Your task to perform on an android device: Open Android settings Image 0: 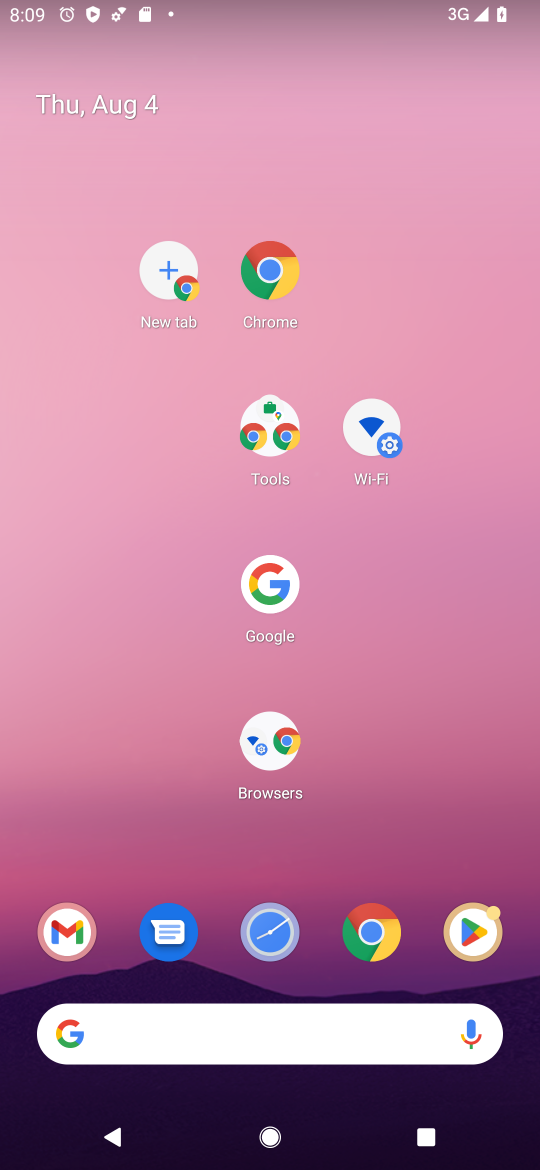
Step 0: drag from (373, 1068) to (362, 249)
Your task to perform on an android device: Open Android settings Image 1: 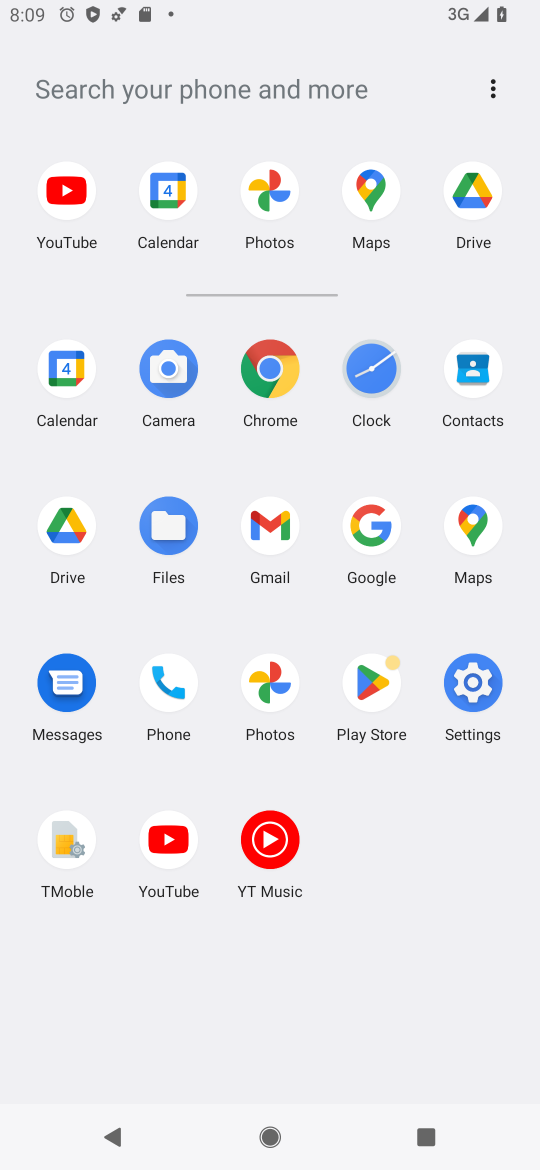
Step 1: click (458, 685)
Your task to perform on an android device: Open Android settings Image 2: 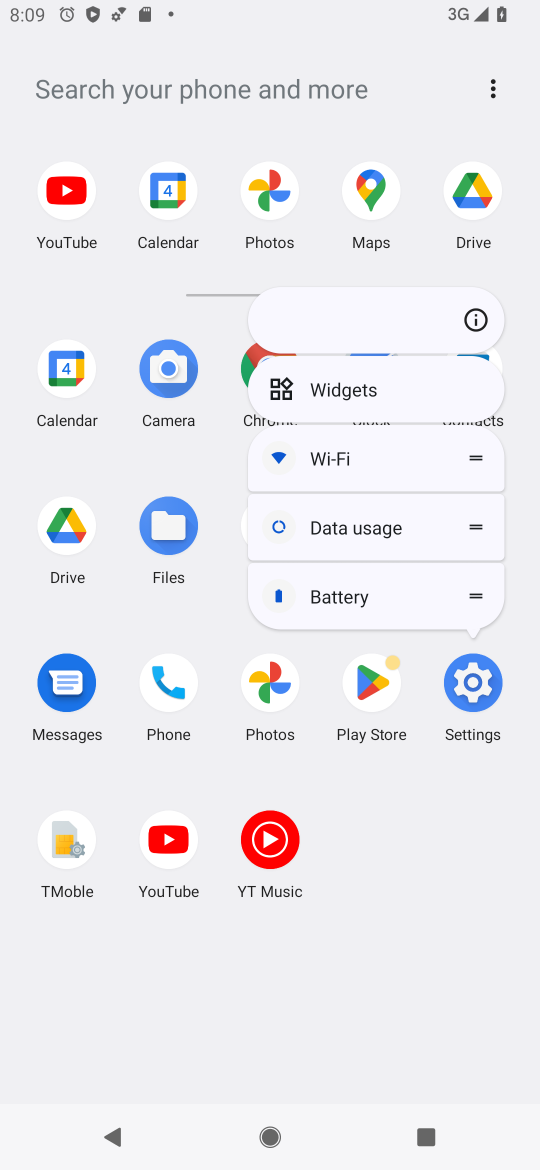
Step 2: click (483, 667)
Your task to perform on an android device: Open Android settings Image 3: 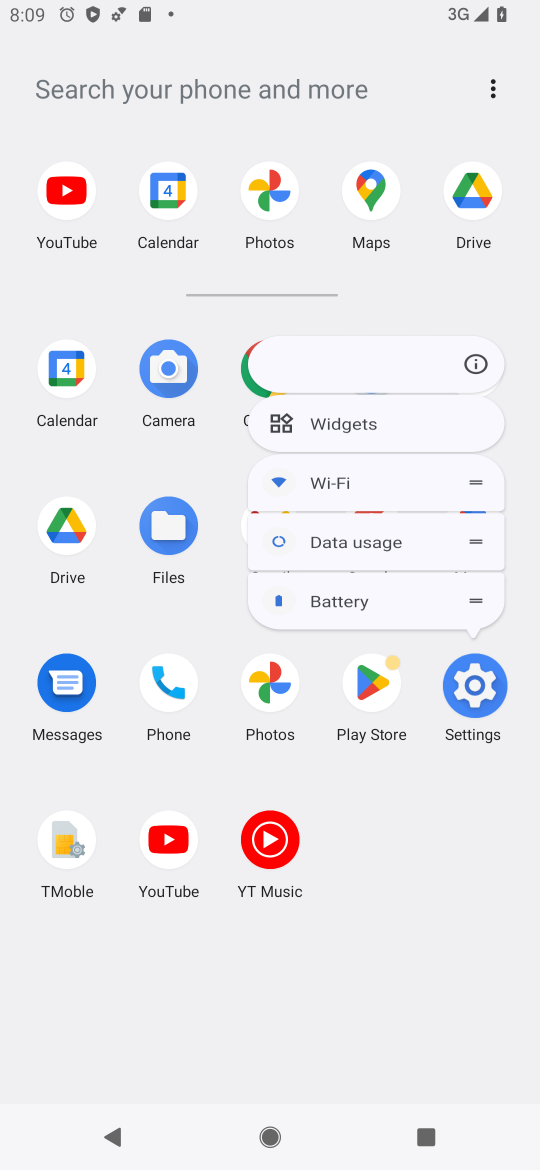
Step 3: click (472, 677)
Your task to perform on an android device: Open Android settings Image 4: 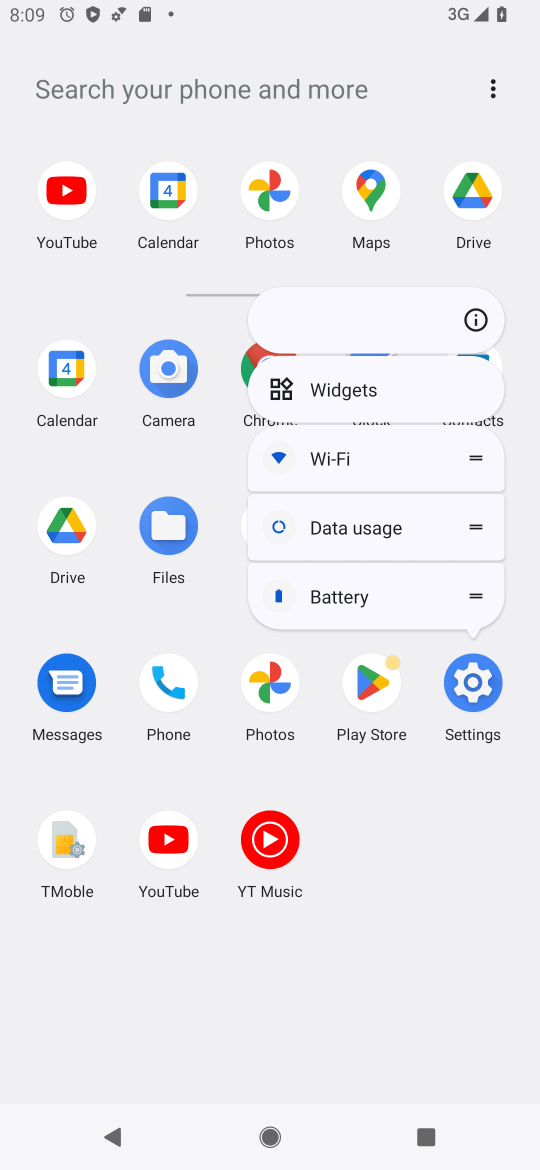
Step 4: click (466, 673)
Your task to perform on an android device: Open Android settings Image 5: 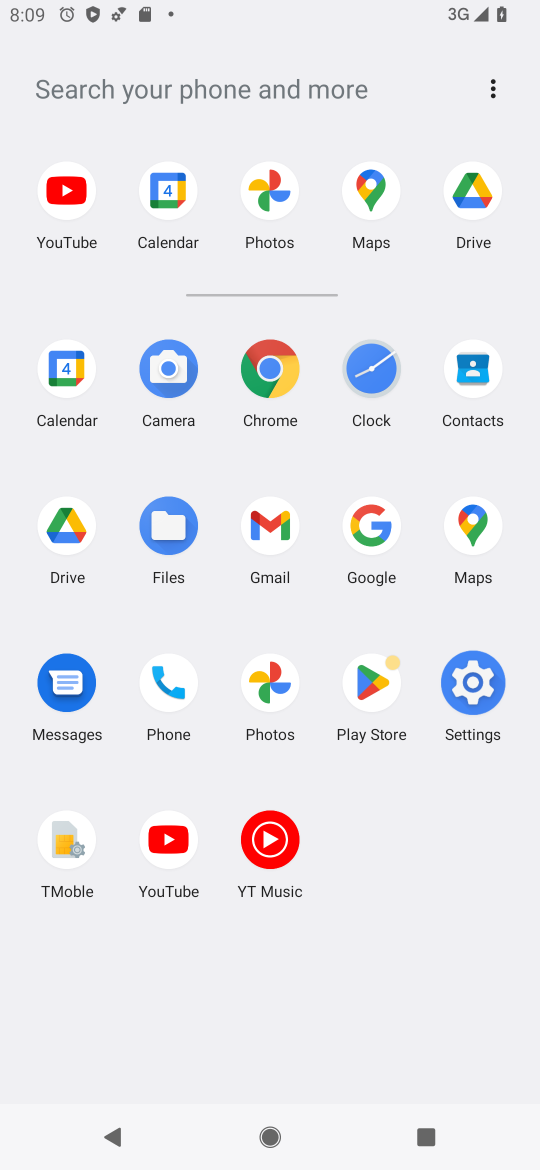
Step 5: click (475, 688)
Your task to perform on an android device: Open Android settings Image 6: 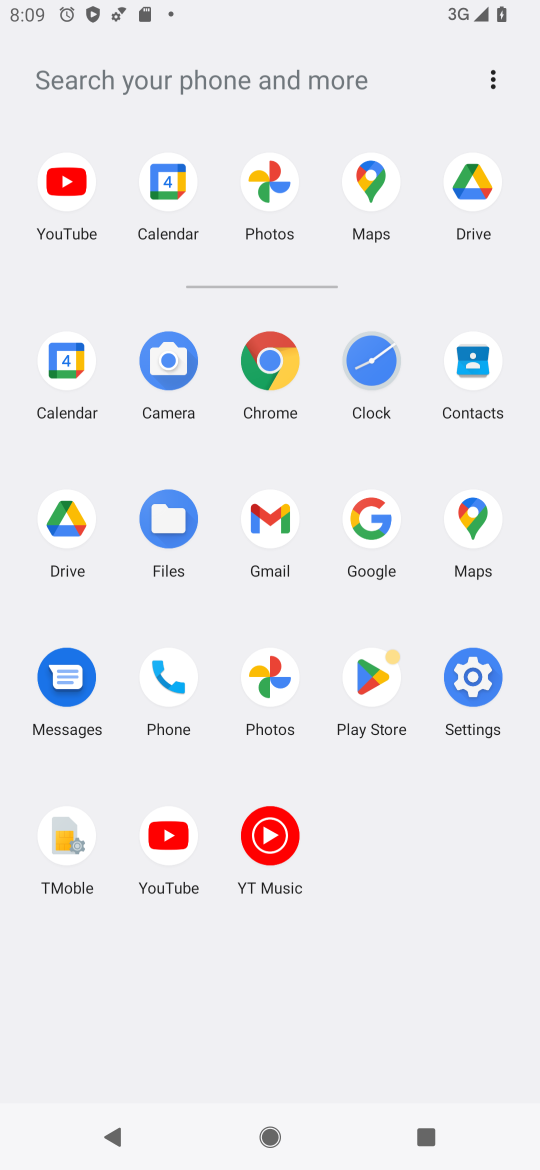
Step 6: click (478, 690)
Your task to perform on an android device: Open Android settings Image 7: 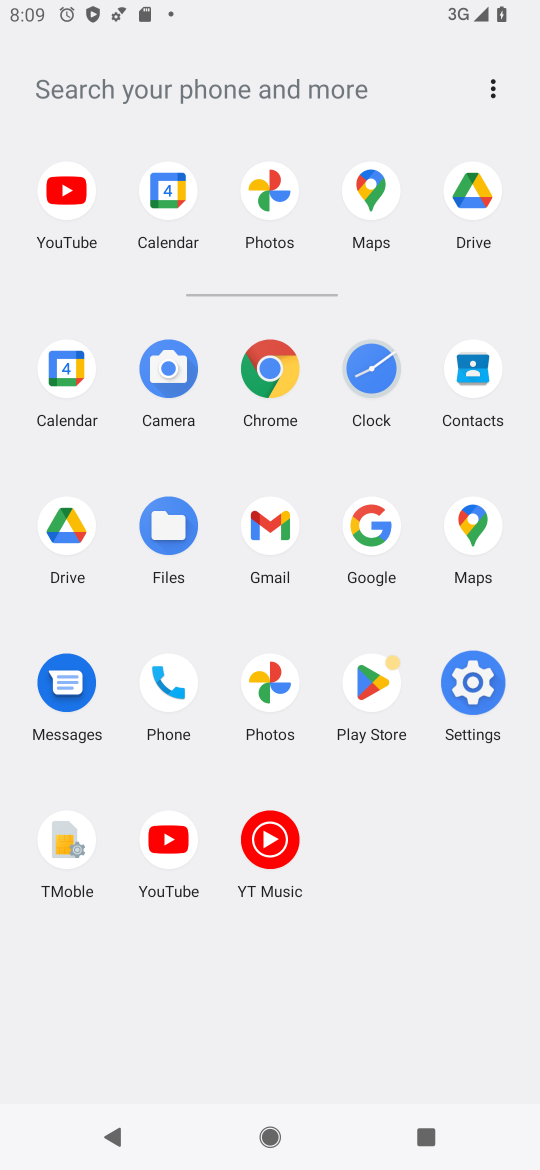
Step 7: click (478, 692)
Your task to perform on an android device: Open Android settings Image 8: 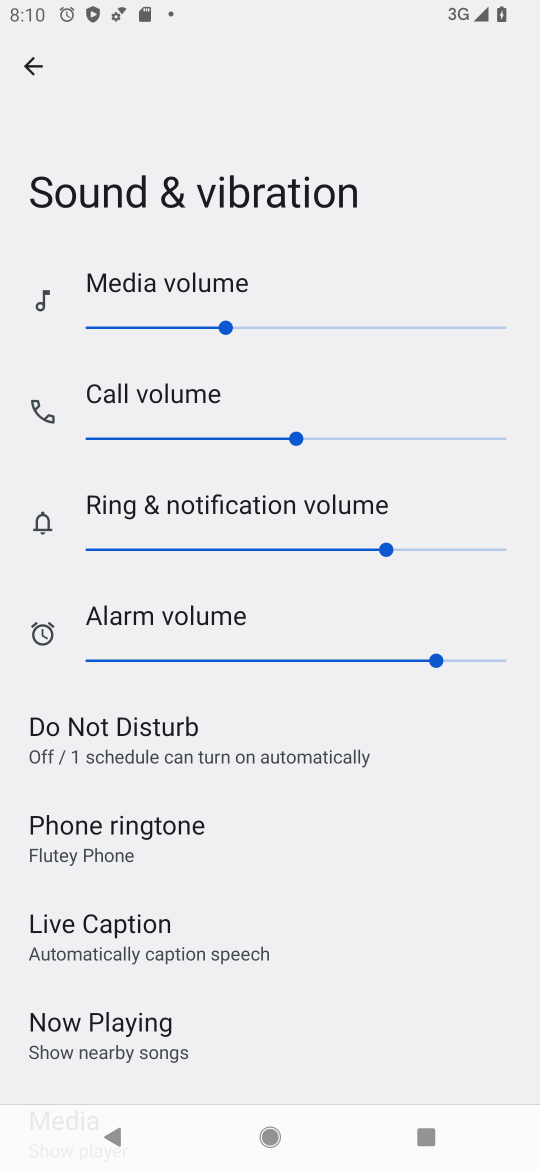
Step 8: click (42, 68)
Your task to perform on an android device: Open Android settings Image 9: 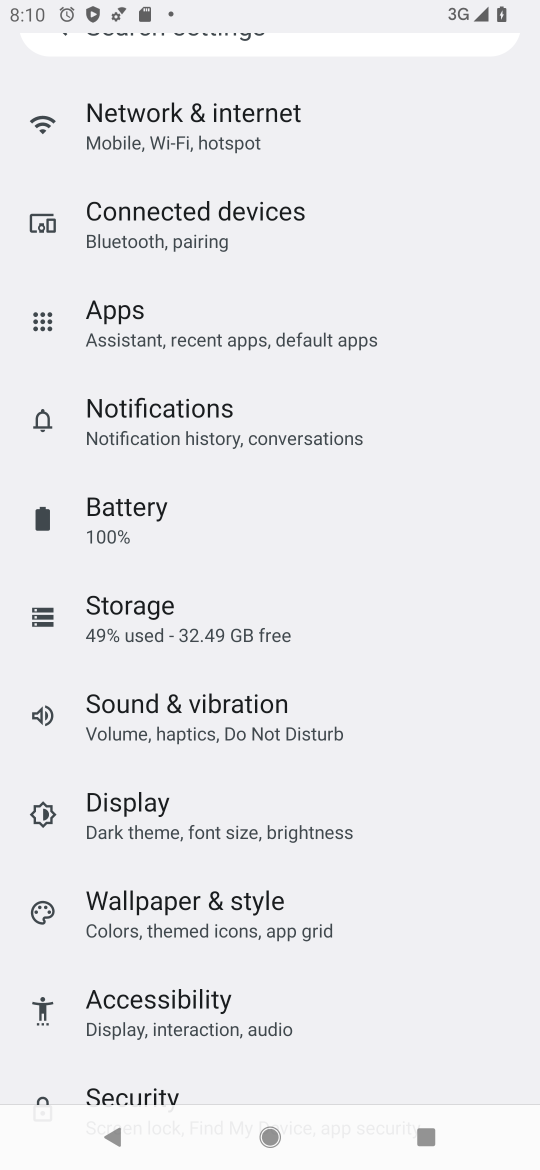
Step 9: drag from (206, 959) to (125, 568)
Your task to perform on an android device: Open Android settings Image 10: 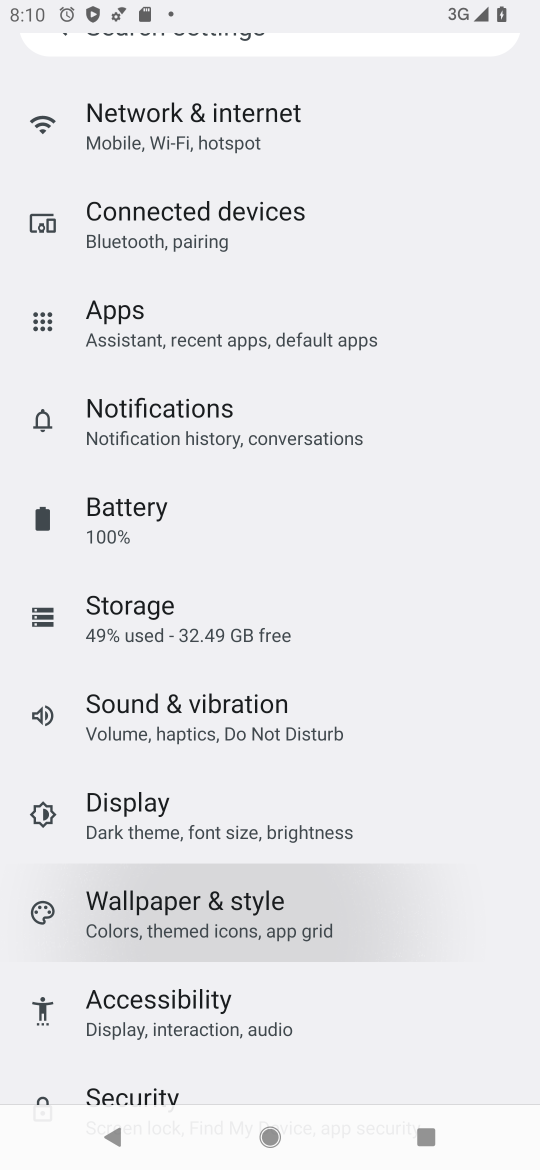
Step 10: click (230, 600)
Your task to perform on an android device: Open Android settings Image 11: 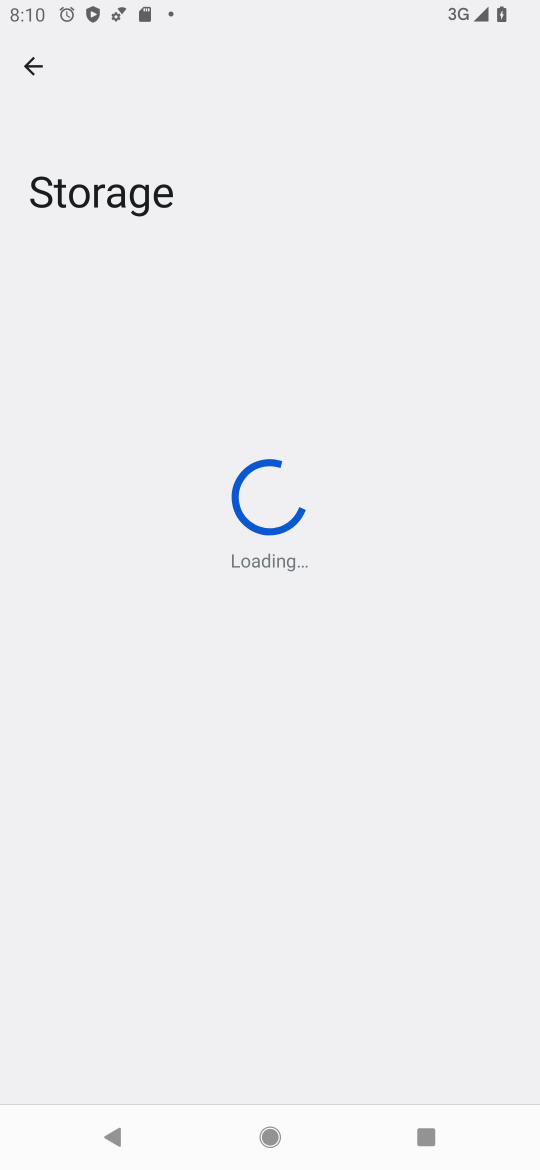
Step 11: drag from (131, 887) to (147, 606)
Your task to perform on an android device: Open Android settings Image 12: 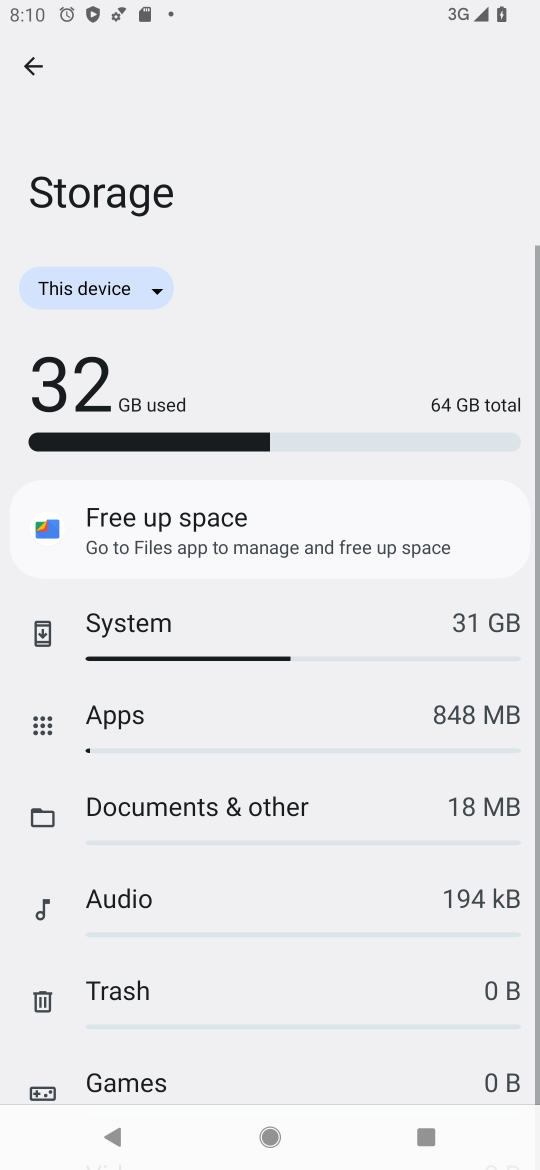
Step 12: click (27, 67)
Your task to perform on an android device: Open Android settings Image 13: 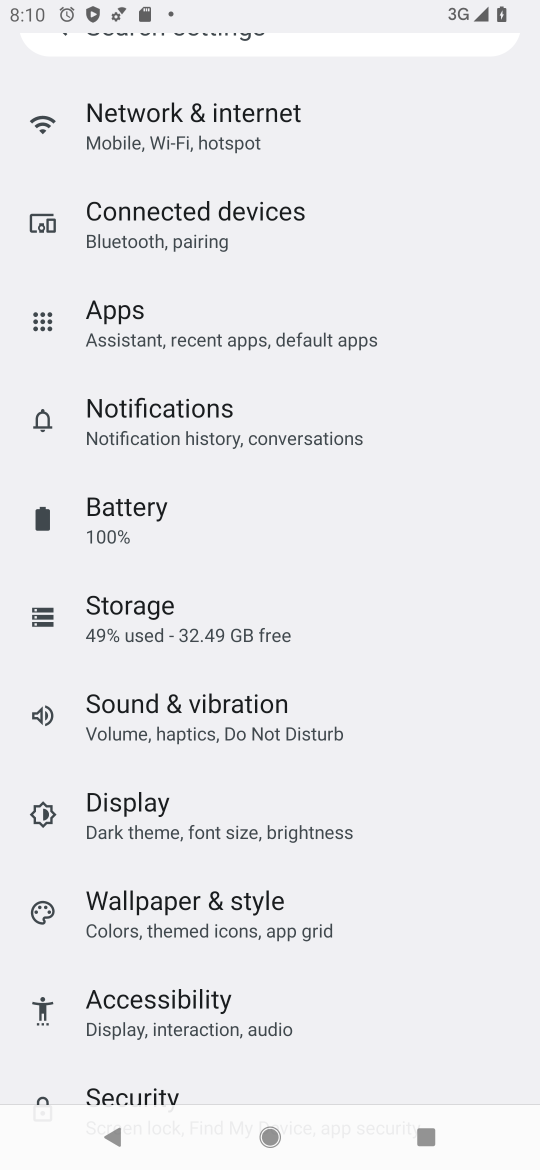
Step 13: drag from (271, 883) to (269, 504)
Your task to perform on an android device: Open Android settings Image 14: 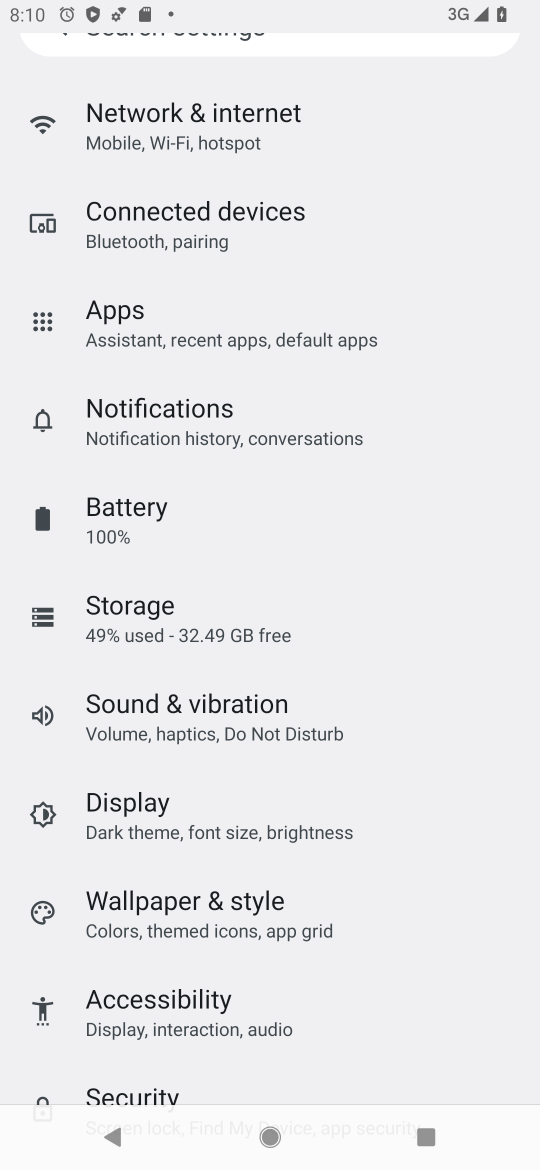
Step 14: drag from (198, 908) to (320, 259)
Your task to perform on an android device: Open Android settings Image 15: 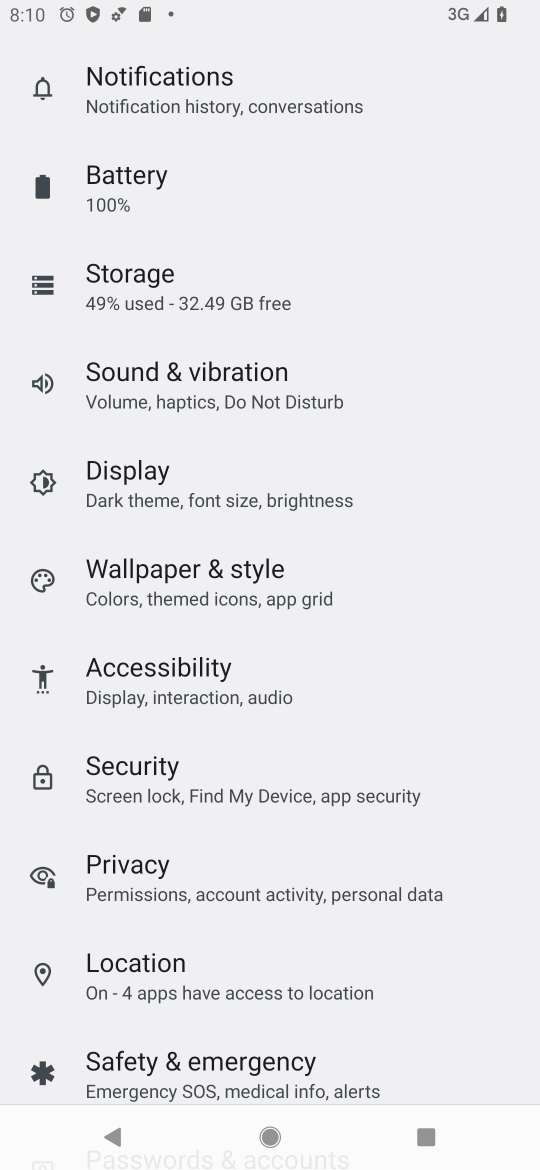
Step 15: drag from (183, 1025) to (188, 520)
Your task to perform on an android device: Open Android settings Image 16: 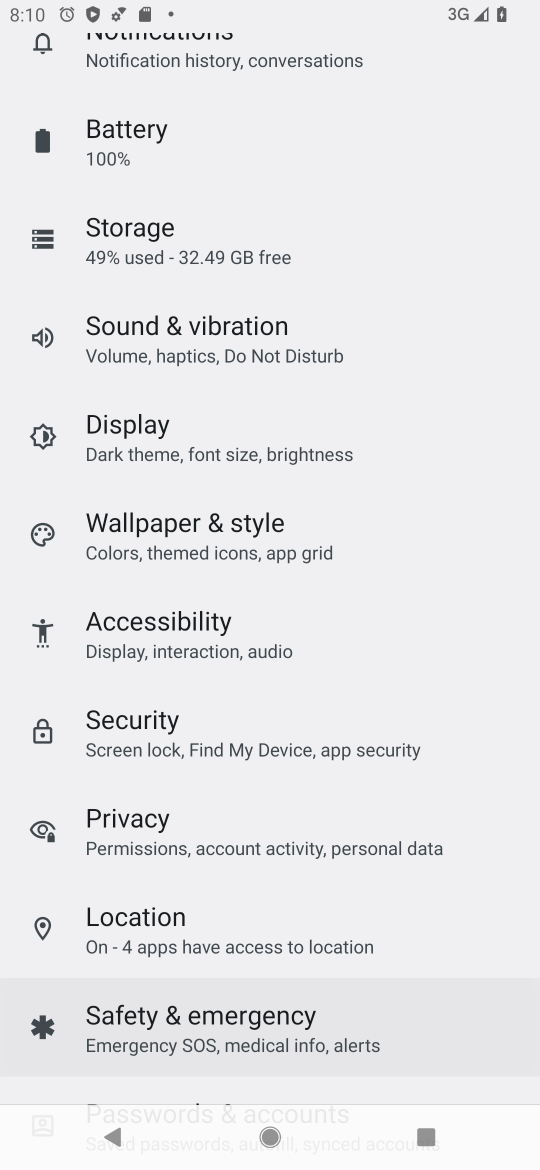
Step 16: drag from (172, 814) to (178, 443)
Your task to perform on an android device: Open Android settings Image 17: 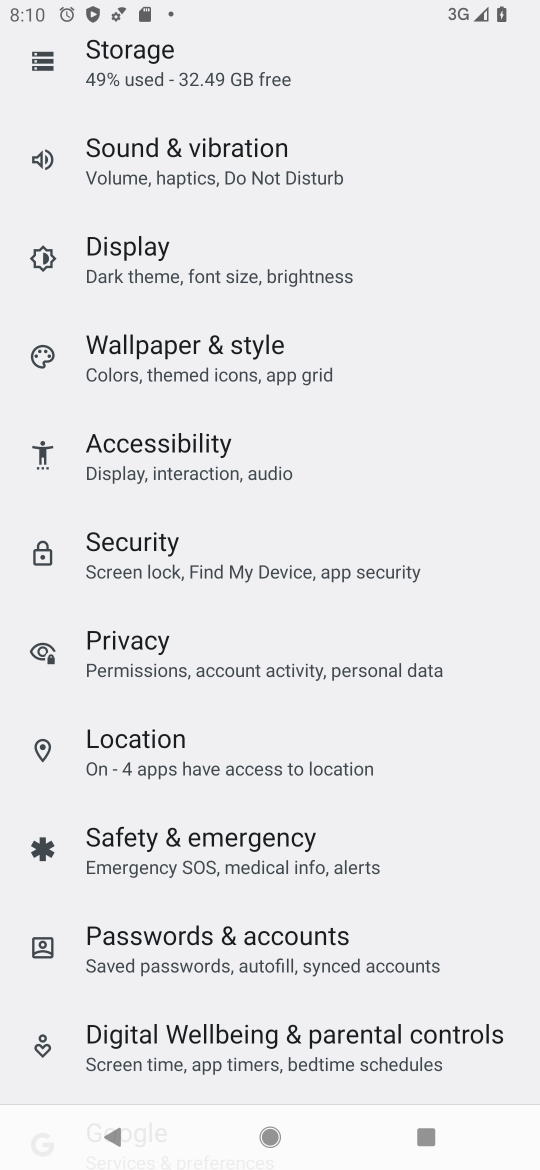
Step 17: drag from (161, 555) to (148, 368)
Your task to perform on an android device: Open Android settings Image 18: 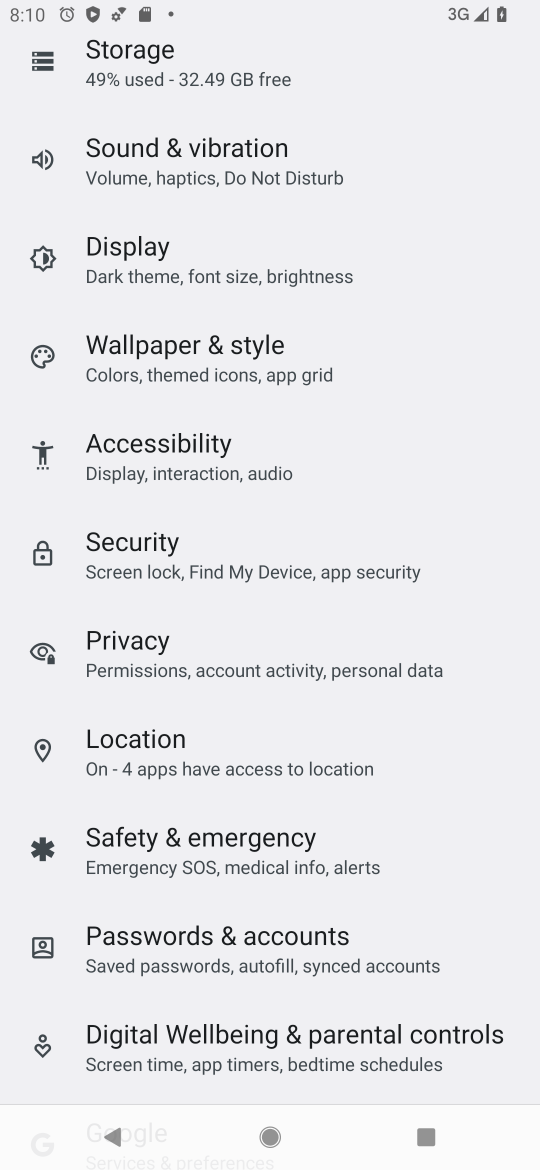
Step 18: drag from (164, 894) to (195, 361)
Your task to perform on an android device: Open Android settings Image 19: 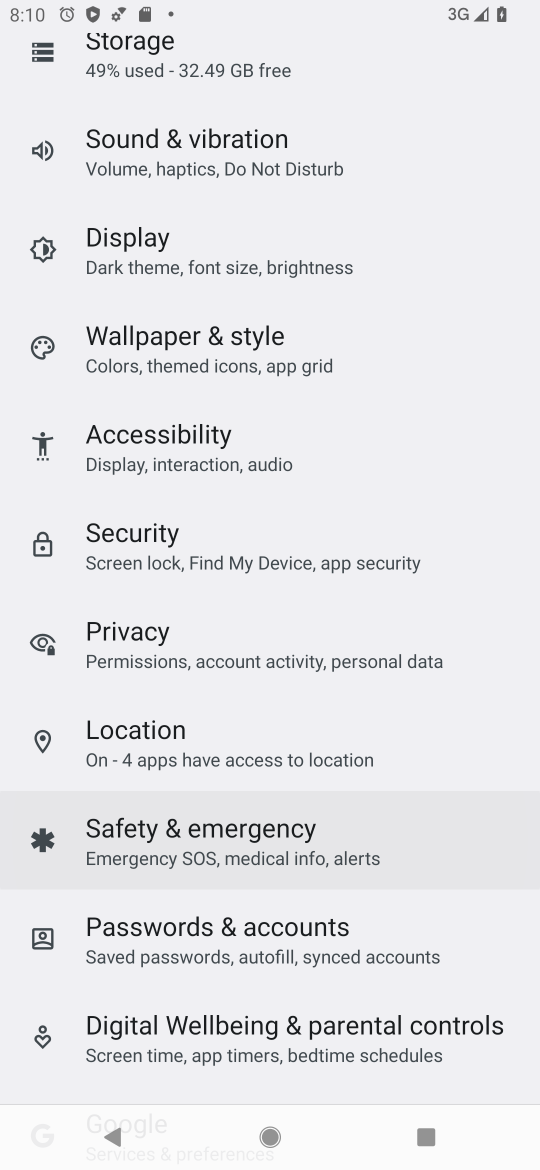
Step 19: drag from (262, 517) to (262, 262)
Your task to perform on an android device: Open Android settings Image 20: 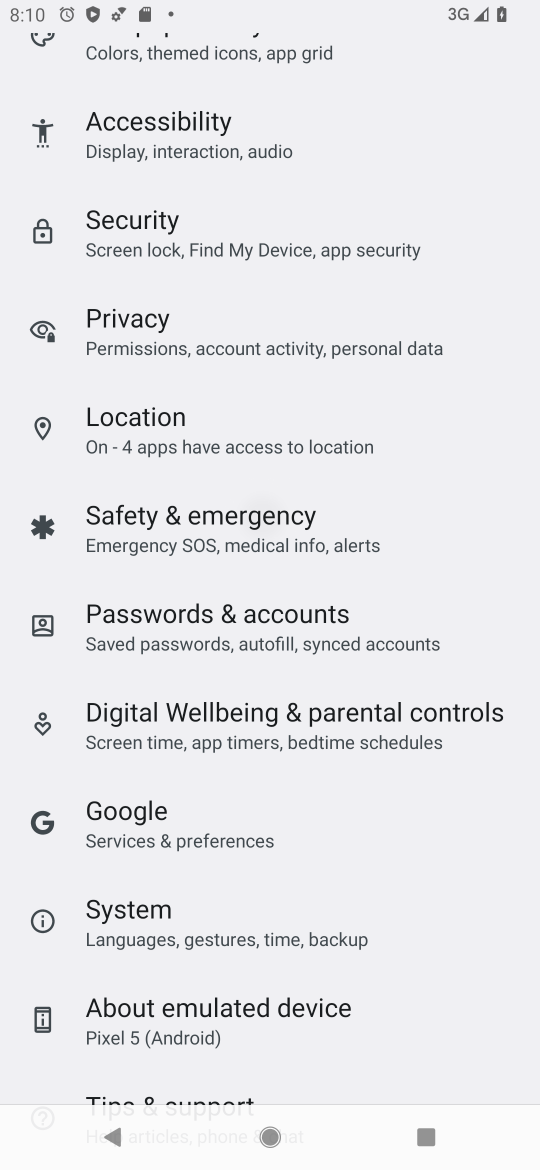
Step 20: drag from (165, 544) to (165, 401)
Your task to perform on an android device: Open Android settings Image 21: 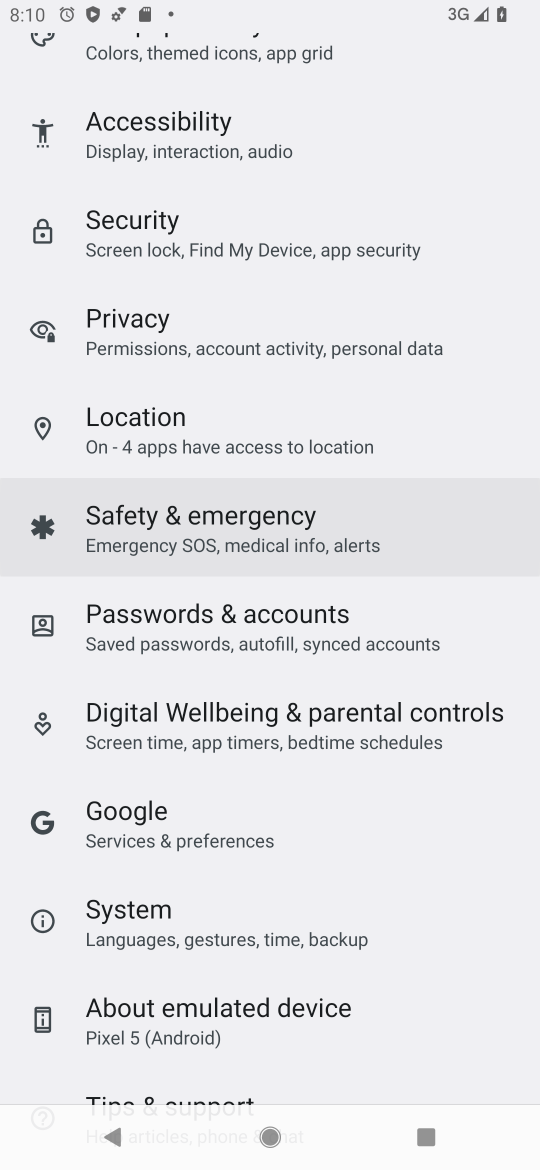
Step 21: drag from (184, 615) to (184, 521)
Your task to perform on an android device: Open Android settings Image 22: 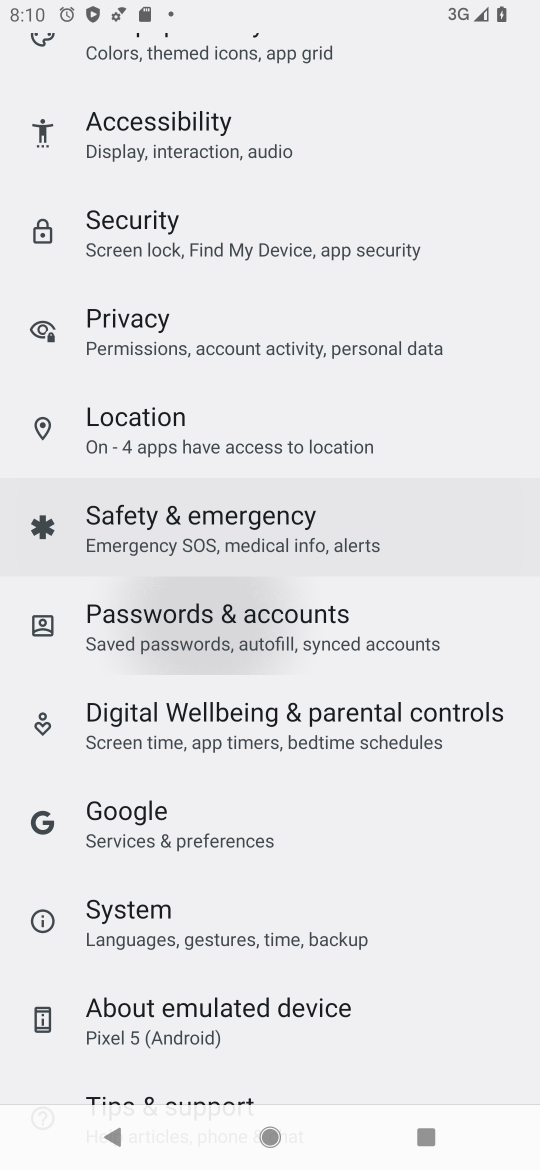
Step 22: drag from (120, 286) to (43, 381)
Your task to perform on an android device: Open Android settings Image 23: 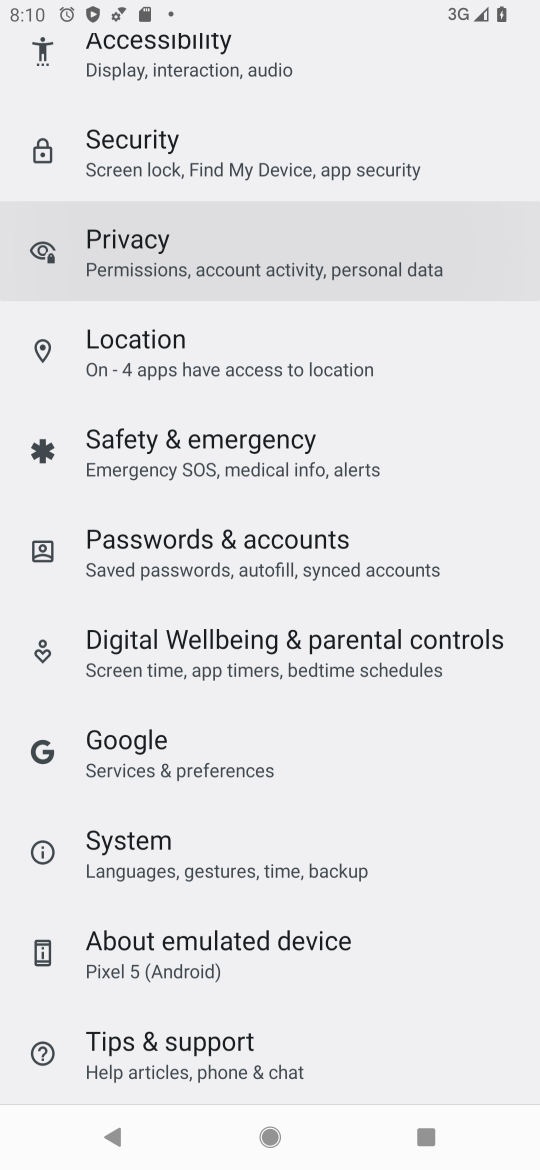
Step 23: drag from (150, 574) to (161, 285)
Your task to perform on an android device: Open Android settings Image 24: 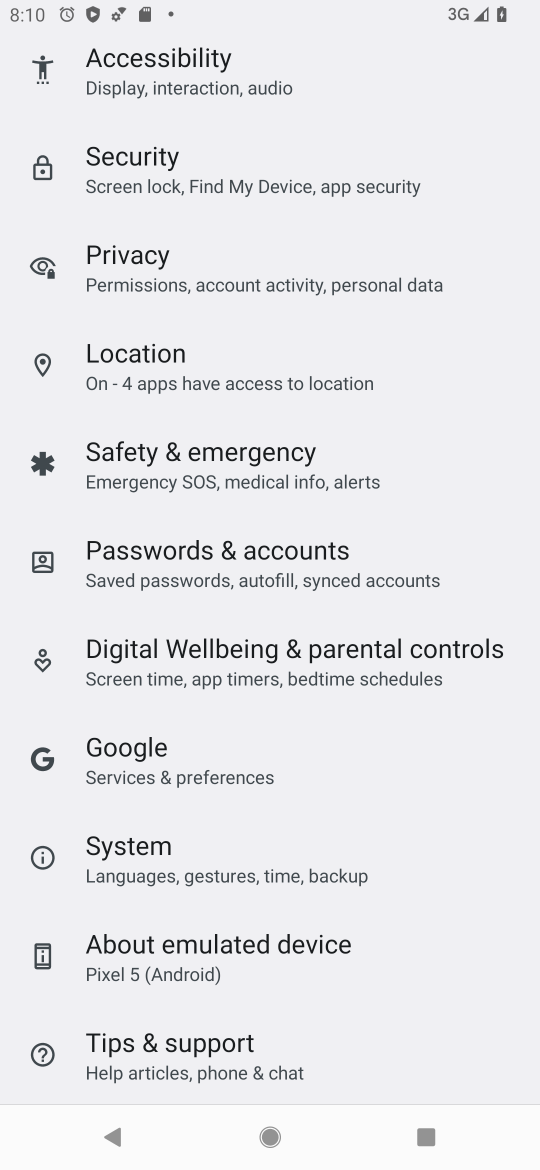
Step 24: drag from (141, 642) to (99, 493)
Your task to perform on an android device: Open Android settings Image 25: 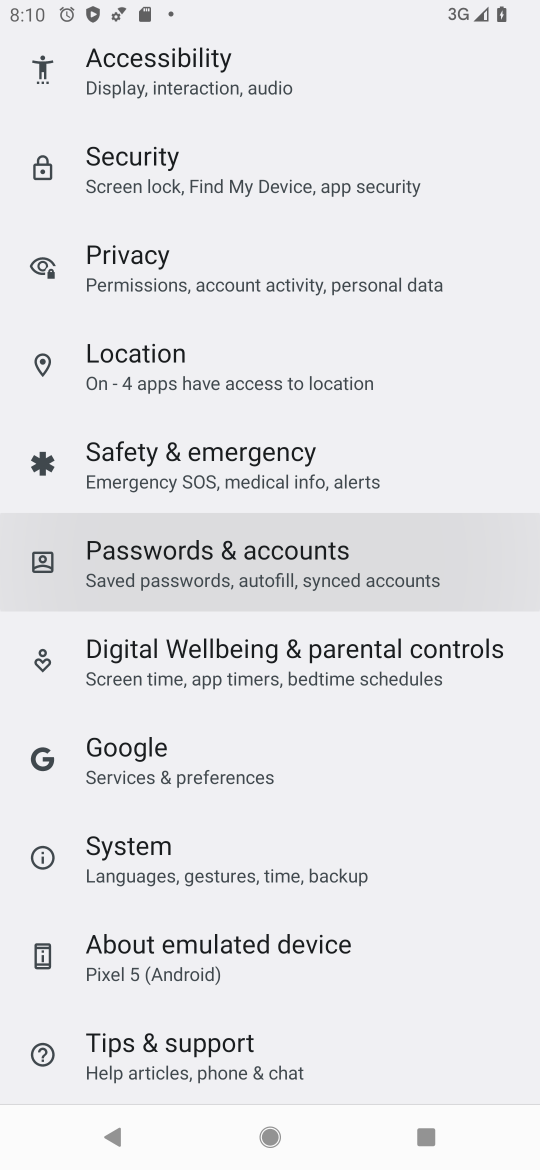
Step 25: drag from (116, 816) to (101, 534)
Your task to perform on an android device: Open Android settings Image 26: 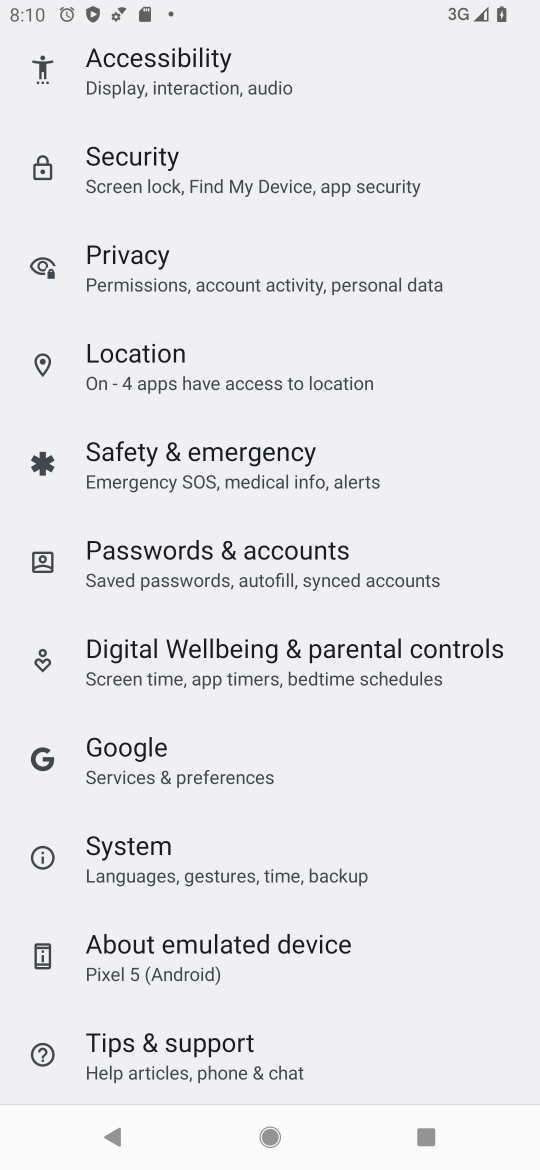
Step 26: drag from (199, 873) to (290, 458)
Your task to perform on an android device: Open Android settings Image 27: 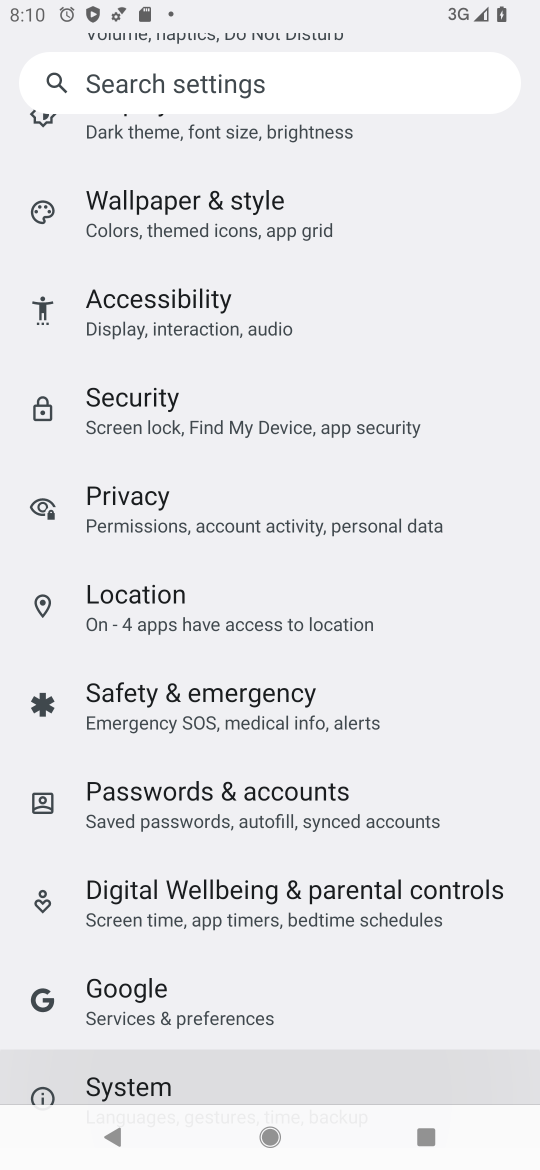
Step 27: drag from (311, 658) to (336, 376)
Your task to perform on an android device: Open Android settings Image 28: 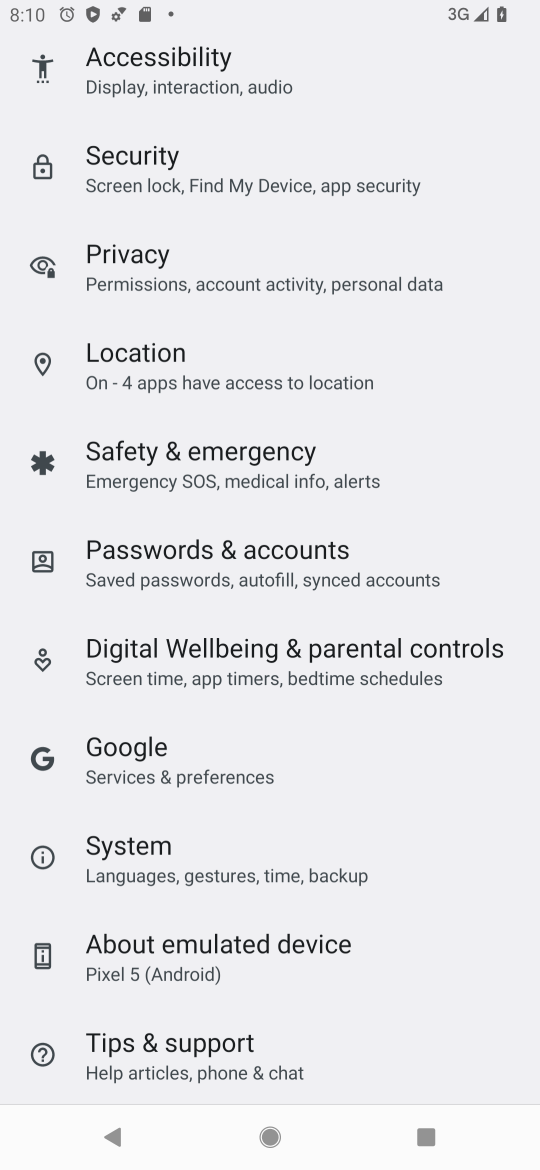
Step 28: drag from (268, 448) to (268, 378)
Your task to perform on an android device: Open Android settings Image 29: 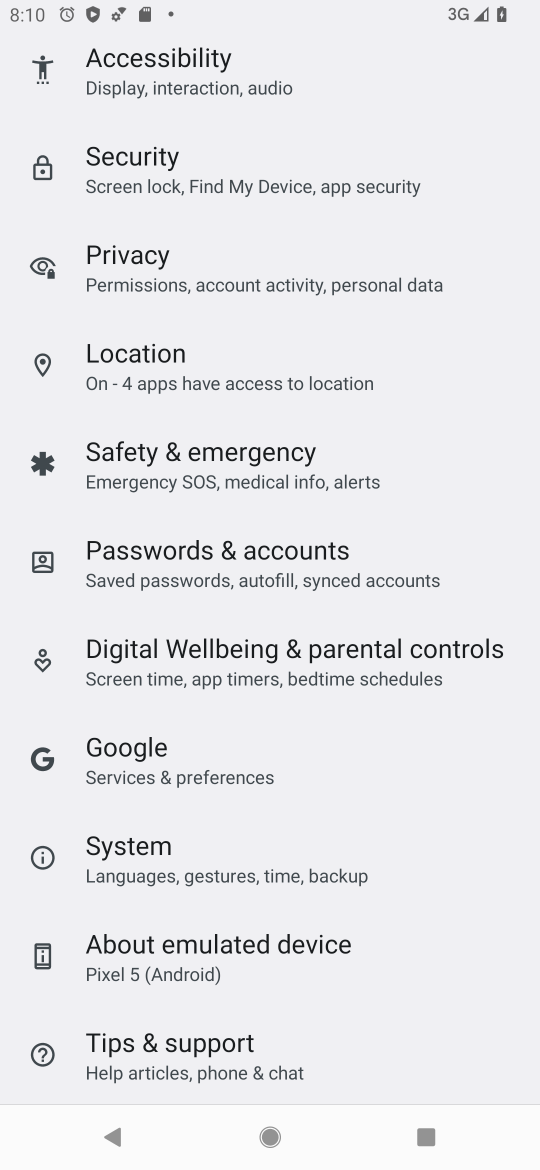
Step 29: drag from (144, 578) to (120, 478)
Your task to perform on an android device: Open Android settings Image 30: 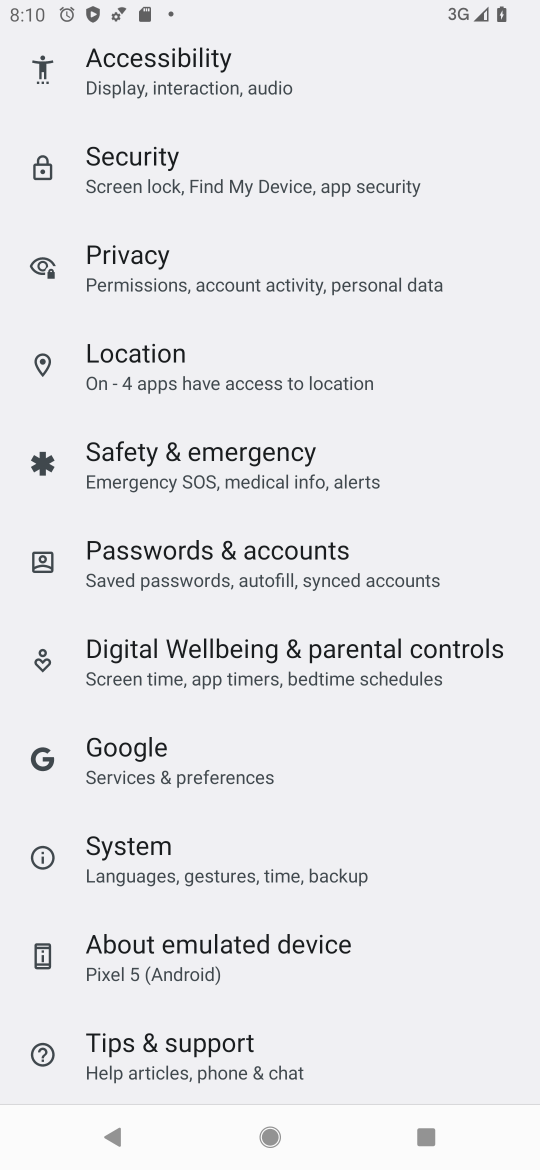
Step 30: drag from (131, 818) to (100, 298)
Your task to perform on an android device: Open Android settings Image 31: 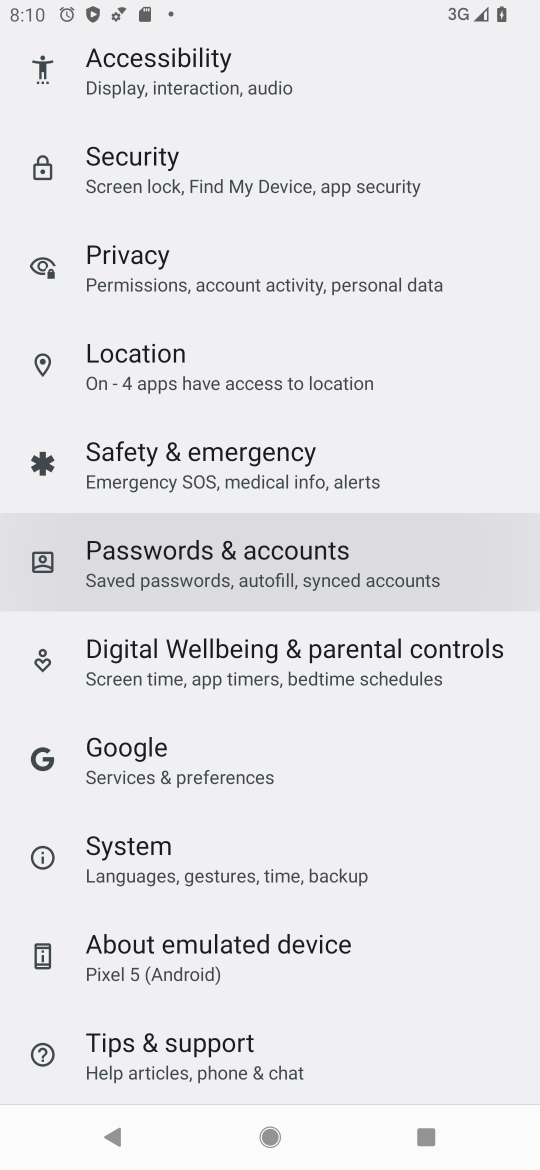
Step 31: drag from (153, 644) to (143, 584)
Your task to perform on an android device: Open Android settings Image 32: 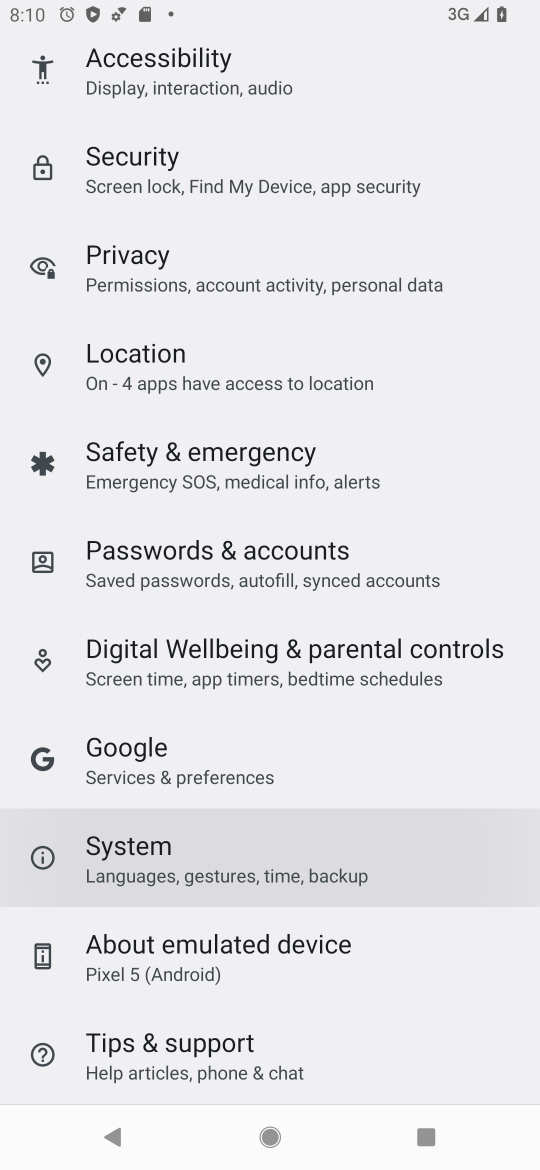
Step 32: click (157, 599)
Your task to perform on an android device: Open Android settings Image 33: 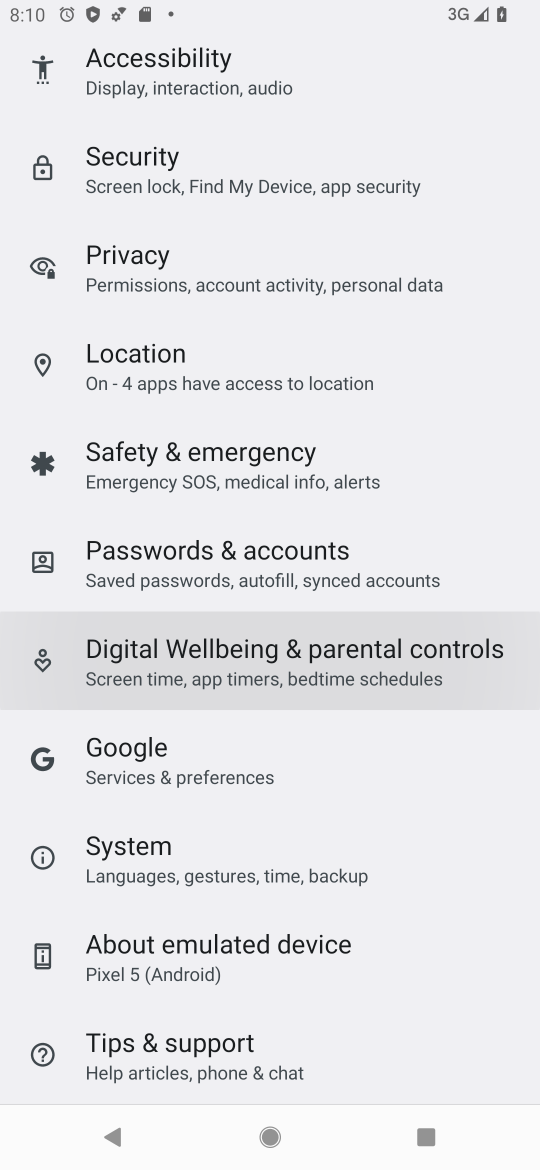
Step 33: click (200, 500)
Your task to perform on an android device: Open Android settings Image 34: 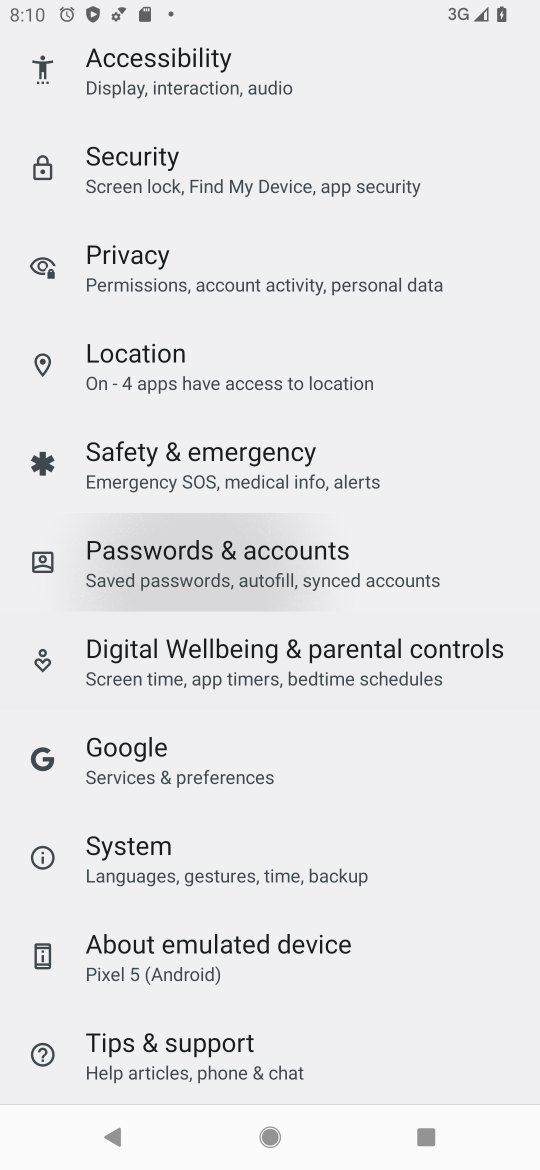
Step 34: drag from (178, 1052) to (121, 740)
Your task to perform on an android device: Open Android settings Image 35: 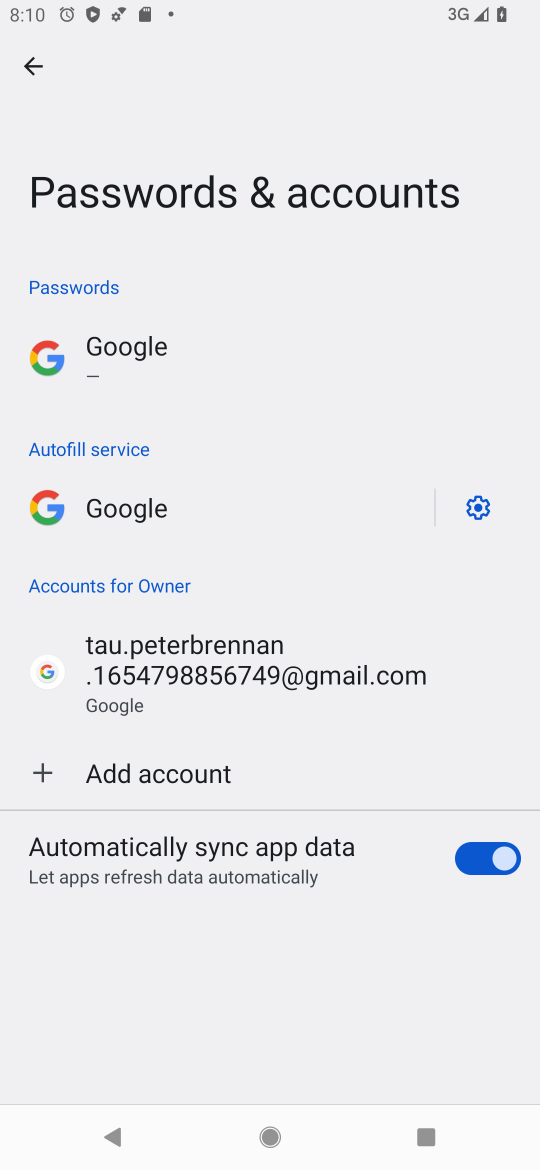
Step 35: drag from (192, 397) to (279, 968)
Your task to perform on an android device: Open Android settings Image 36: 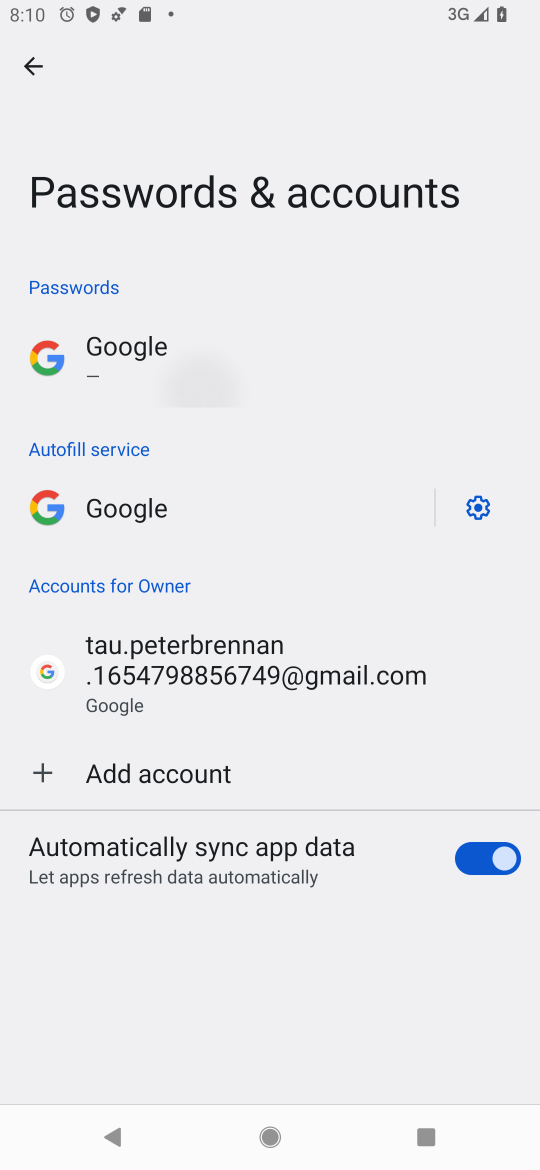
Step 36: click (172, 843)
Your task to perform on an android device: Open Android settings Image 37: 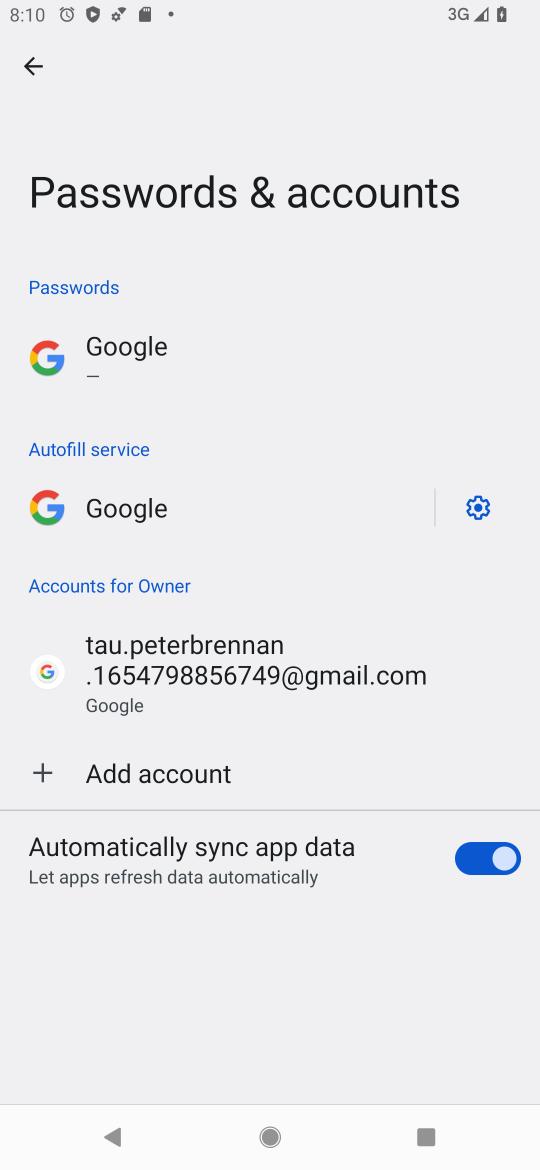
Step 37: click (38, 68)
Your task to perform on an android device: Open Android settings Image 38: 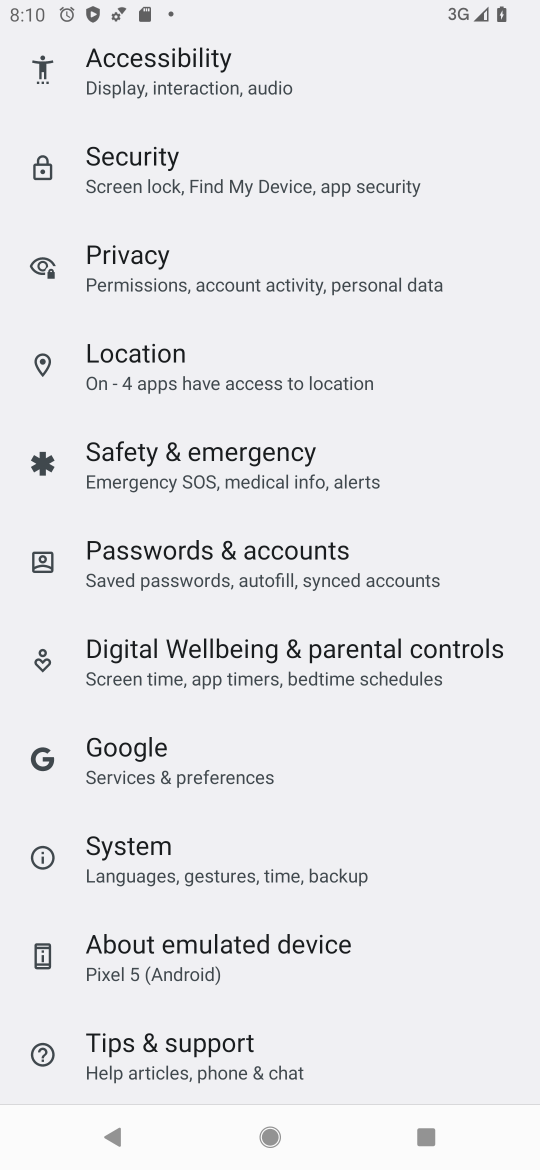
Step 38: task complete